Your task to perform on an android device: turn off location Image 0: 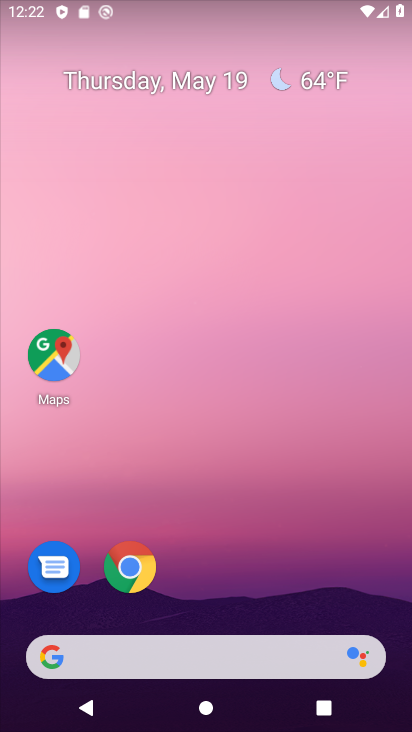
Step 0: drag from (221, 573) to (240, 145)
Your task to perform on an android device: turn off location Image 1: 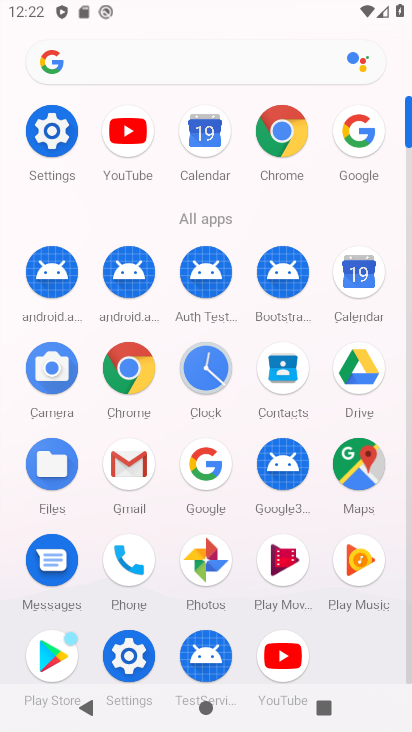
Step 1: click (59, 131)
Your task to perform on an android device: turn off location Image 2: 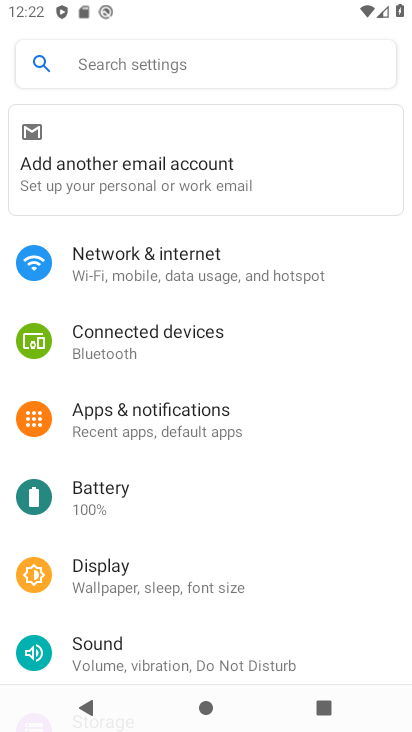
Step 2: drag from (132, 596) to (165, 257)
Your task to perform on an android device: turn off location Image 3: 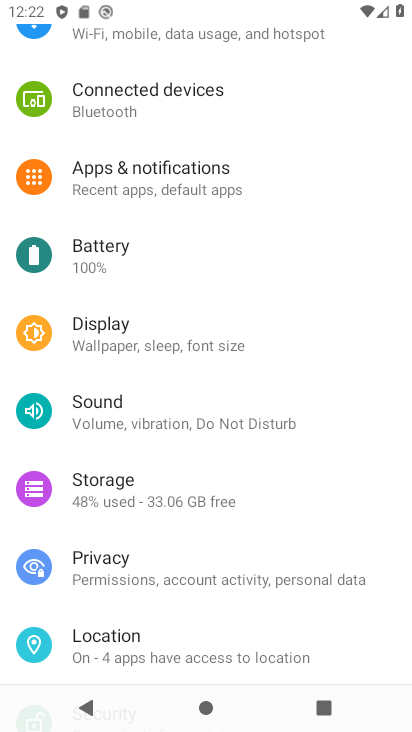
Step 3: click (156, 656)
Your task to perform on an android device: turn off location Image 4: 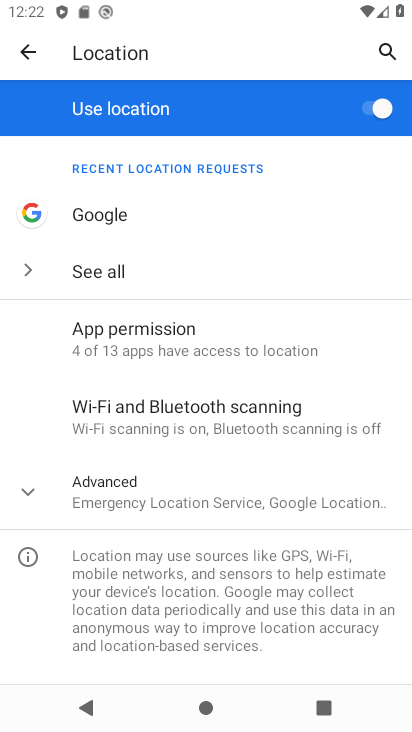
Step 4: click (385, 102)
Your task to perform on an android device: turn off location Image 5: 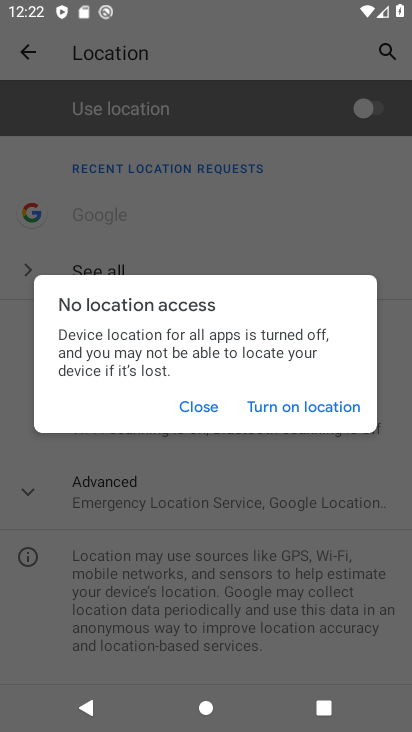
Step 5: task complete